Your task to perform on an android device: Open ESPN.com Image 0: 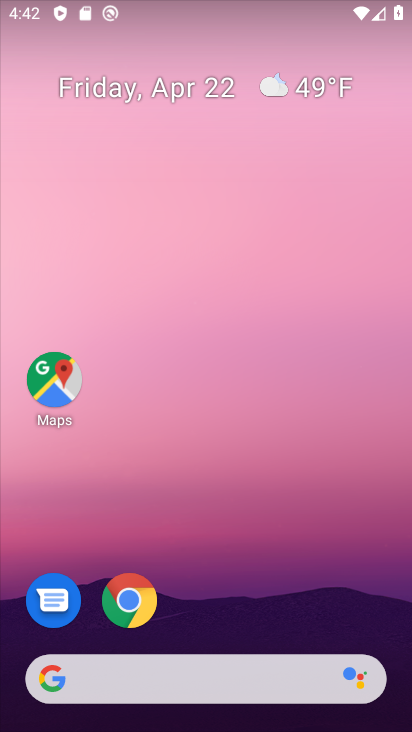
Step 0: click (128, 598)
Your task to perform on an android device: Open ESPN.com Image 1: 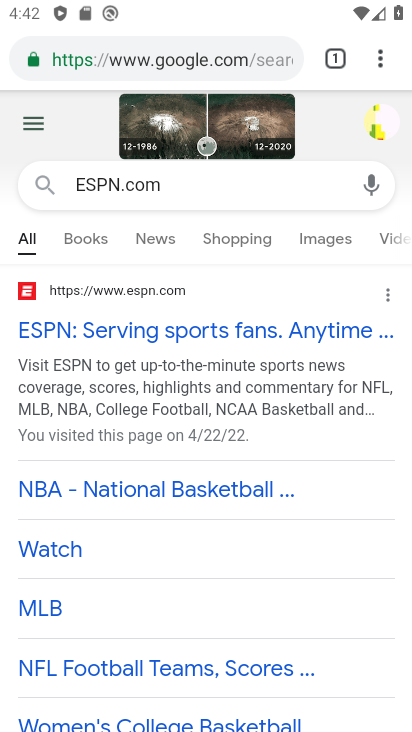
Step 1: click (268, 56)
Your task to perform on an android device: Open ESPN.com Image 2: 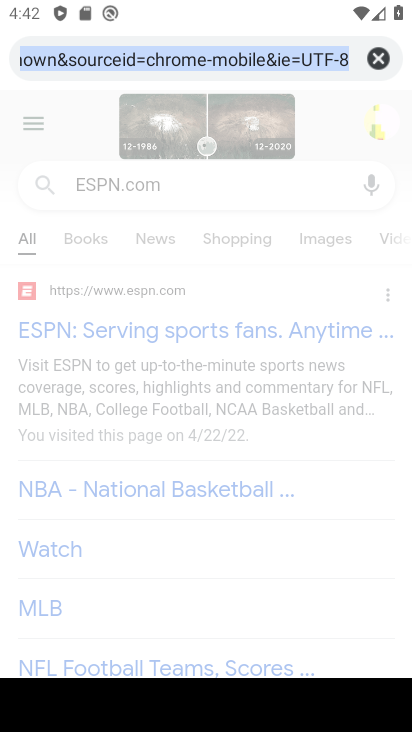
Step 2: click (381, 59)
Your task to perform on an android device: Open ESPN.com Image 3: 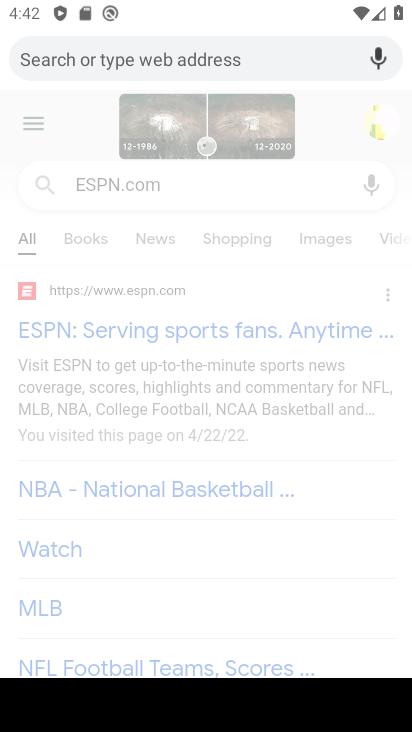
Step 3: type "ESPN.com"
Your task to perform on an android device: Open ESPN.com Image 4: 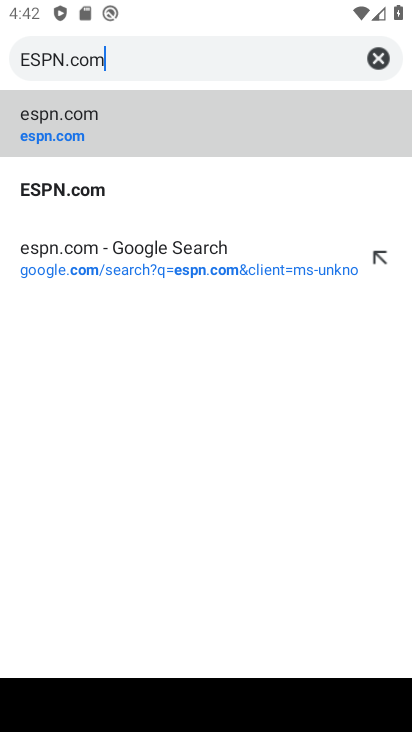
Step 4: click (96, 191)
Your task to perform on an android device: Open ESPN.com Image 5: 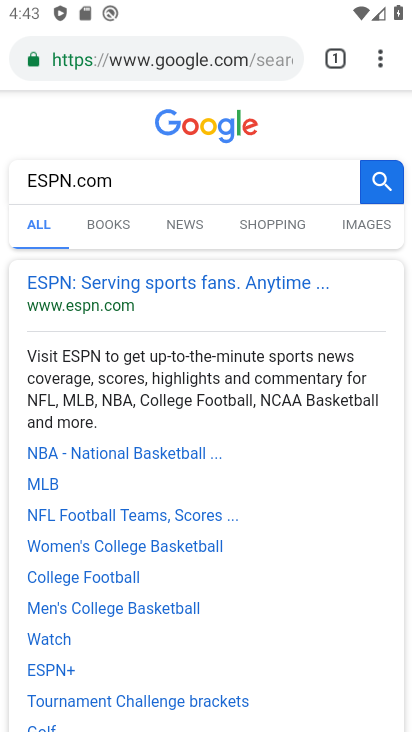
Step 5: task complete